Your task to perform on an android device: open a new tab in the chrome app Image 0: 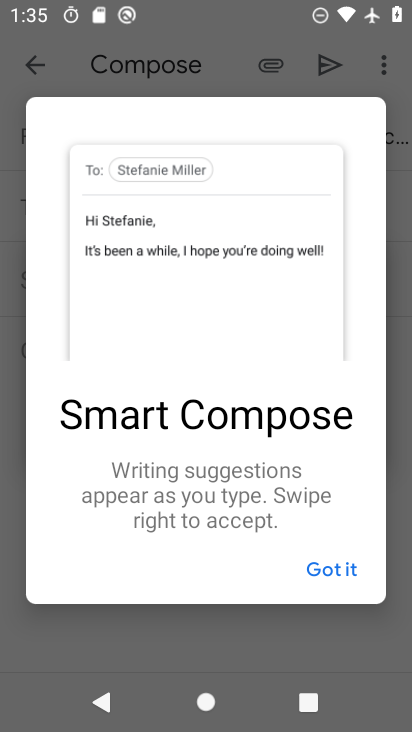
Step 0: drag from (144, 638) to (232, 319)
Your task to perform on an android device: open a new tab in the chrome app Image 1: 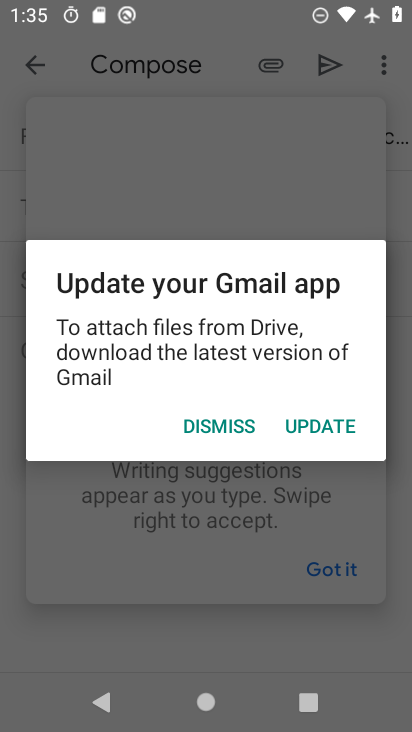
Step 1: press home button
Your task to perform on an android device: open a new tab in the chrome app Image 2: 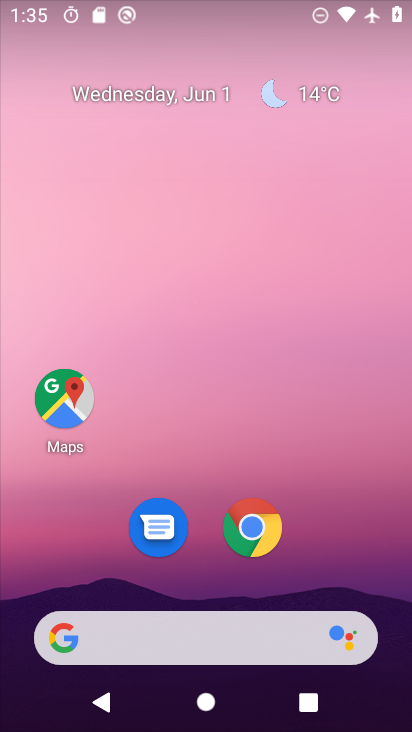
Step 2: drag from (210, 634) to (278, 149)
Your task to perform on an android device: open a new tab in the chrome app Image 3: 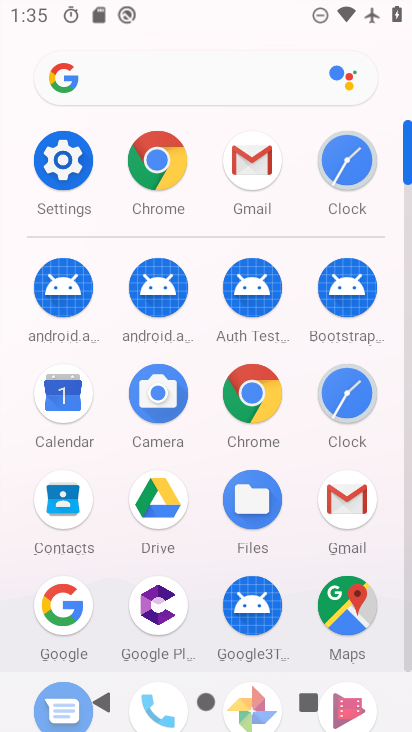
Step 3: click (252, 417)
Your task to perform on an android device: open a new tab in the chrome app Image 4: 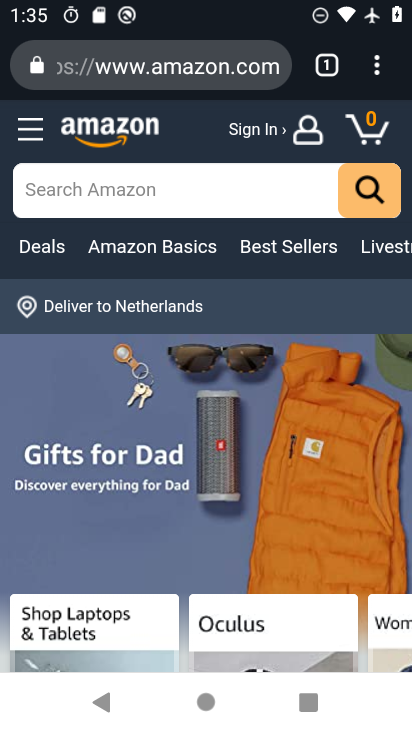
Step 4: drag from (324, 71) to (293, 288)
Your task to perform on an android device: open a new tab in the chrome app Image 5: 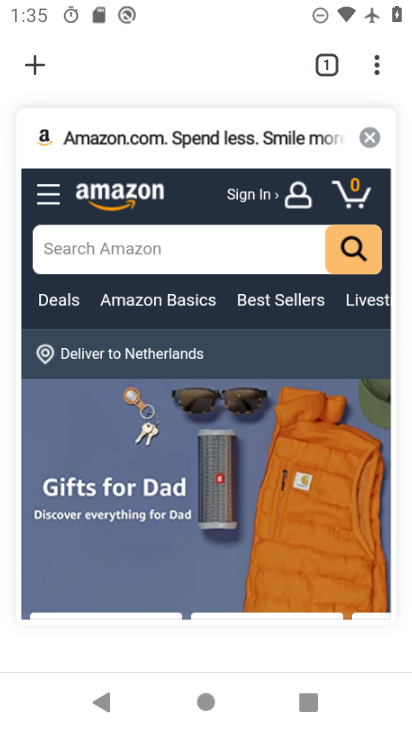
Step 5: click (44, 57)
Your task to perform on an android device: open a new tab in the chrome app Image 6: 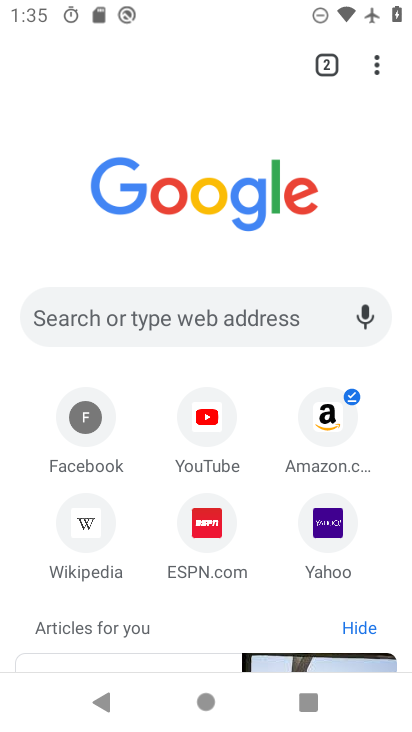
Step 6: task complete